Your task to perform on an android device: add a label to a message in the gmail app Image 0: 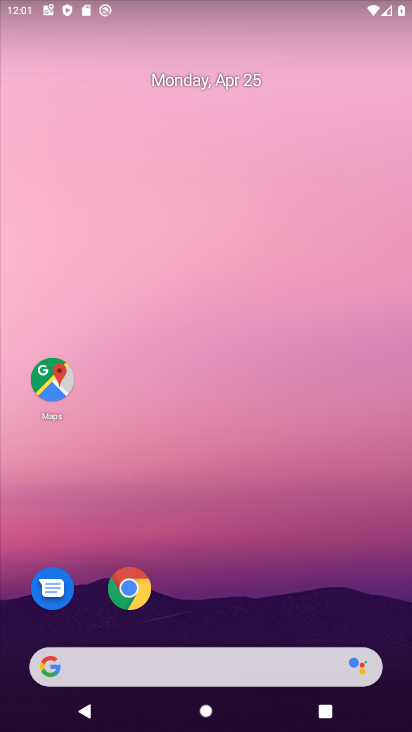
Step 0: drag from (184, 608) to (282, 113)
Your task to perform on an android device: add a label to a message in the gmail app Image 1: 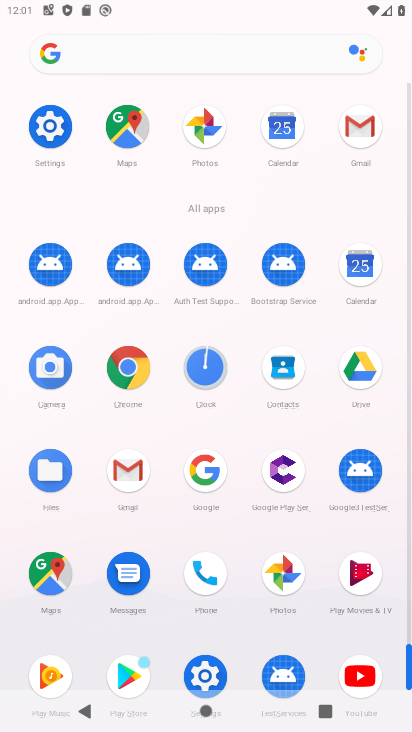
Step 1: click (126, 472)
Your task to perform on an android device: add a label to a message in the gmail app Image 2: 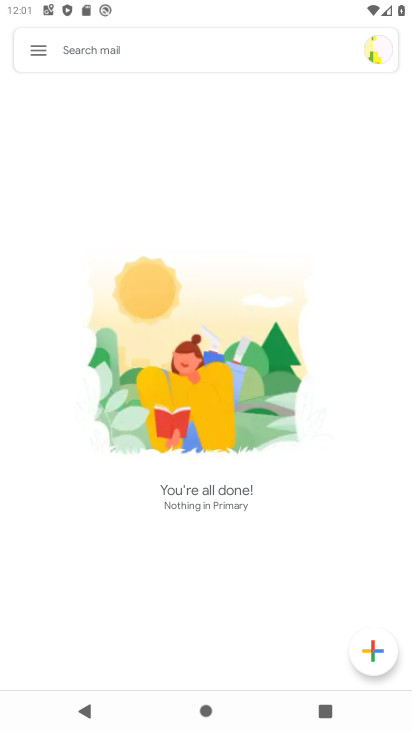
Step 2: click (48, 51)
Your task to perform on an android device: add a label to a message in the gmail app Image 3: 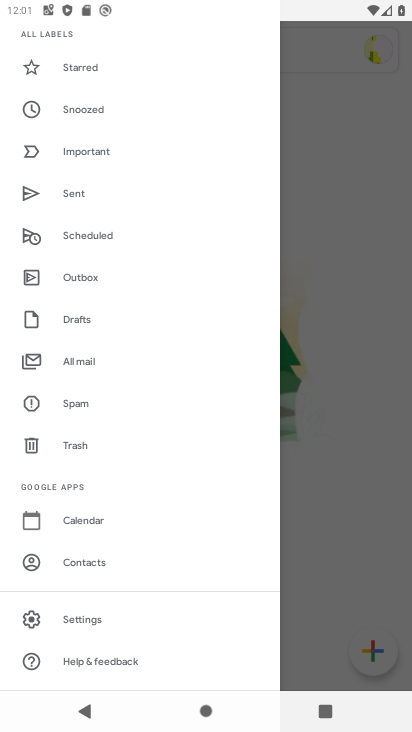
Step 3: drag from (118, 646) to (186, 340)
Your task to perform on an android device: add a label to a message in the gmail app Image 4: 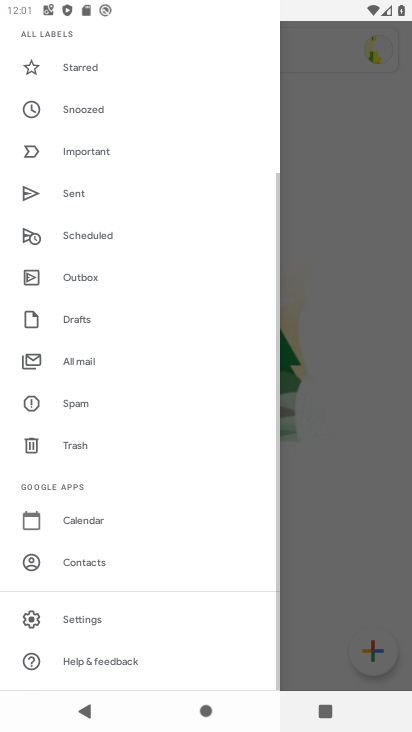
Step 4: click (124, 363)
Your task to perform on an android device: add a label to a message in the gmail app Image 5: 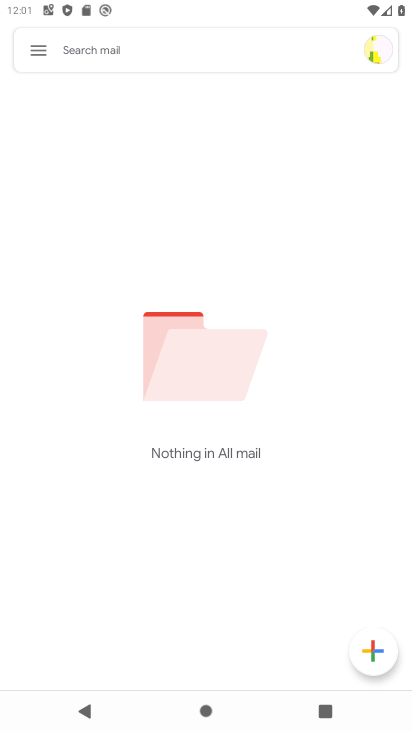
Step 5: task complete